Your task to perform on an android device: Show me the best rated 4K TV on Walmart. Image 0: 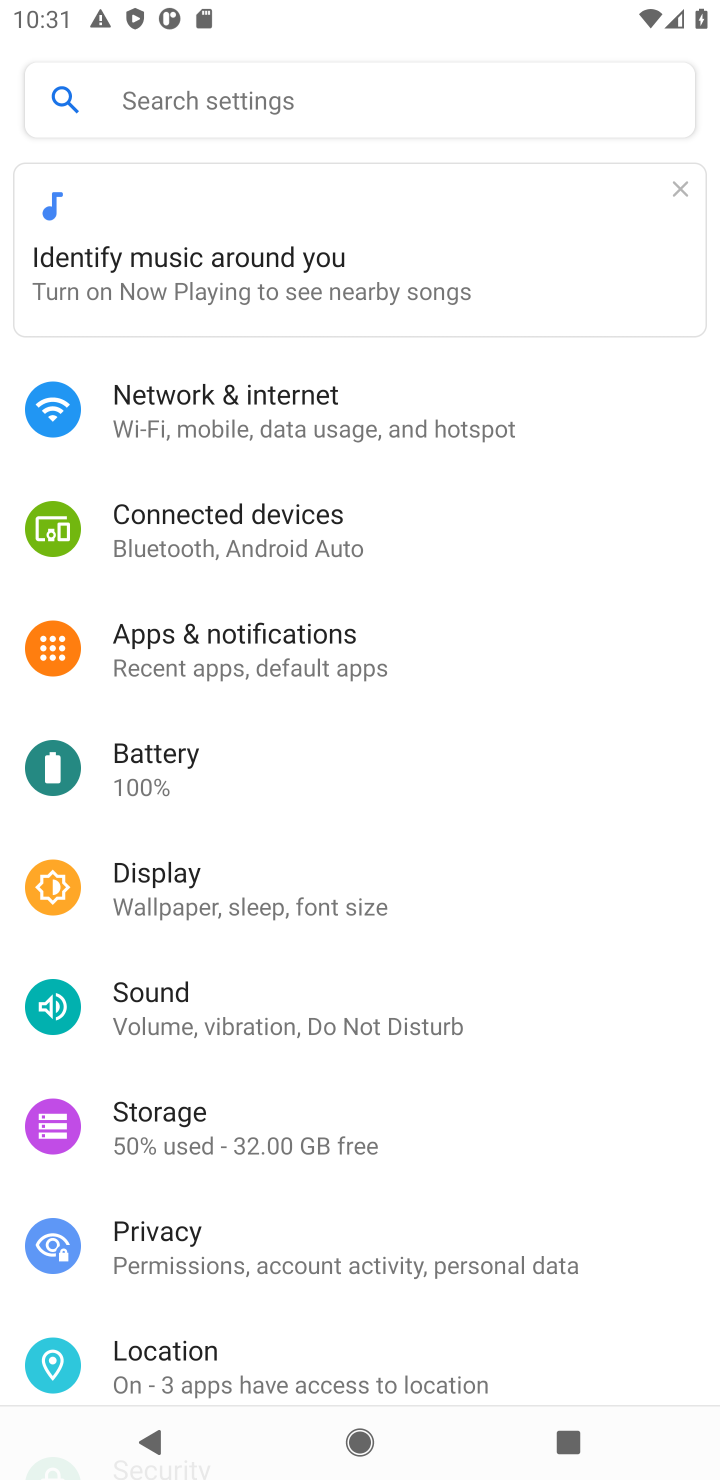
Step 0: press home button
Your task to perform on an android device: Show me the best rated 4K TV on Walmart. Image 1: 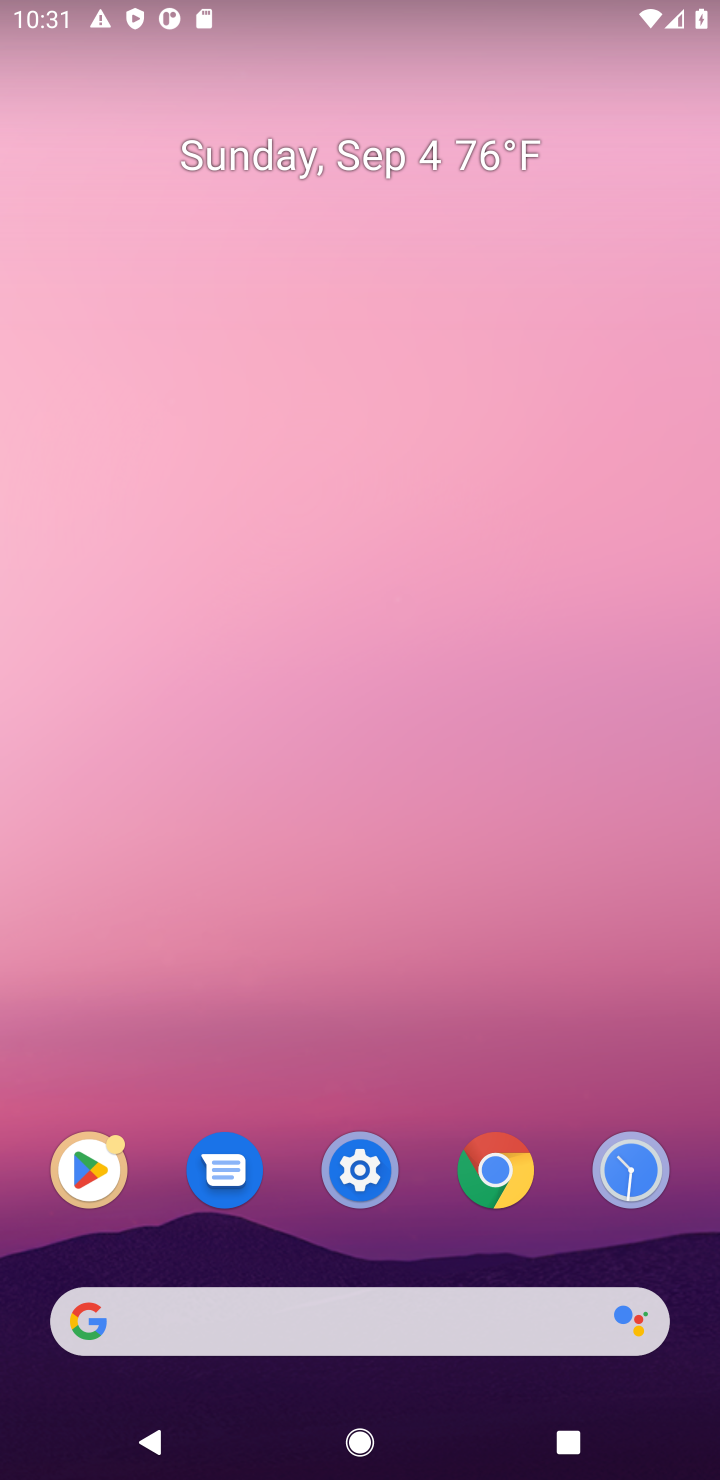
Step 1: click (409, 1346)
Your task to perform on an android device: Show me the best rated 4K TV on Walmart. Image 2: 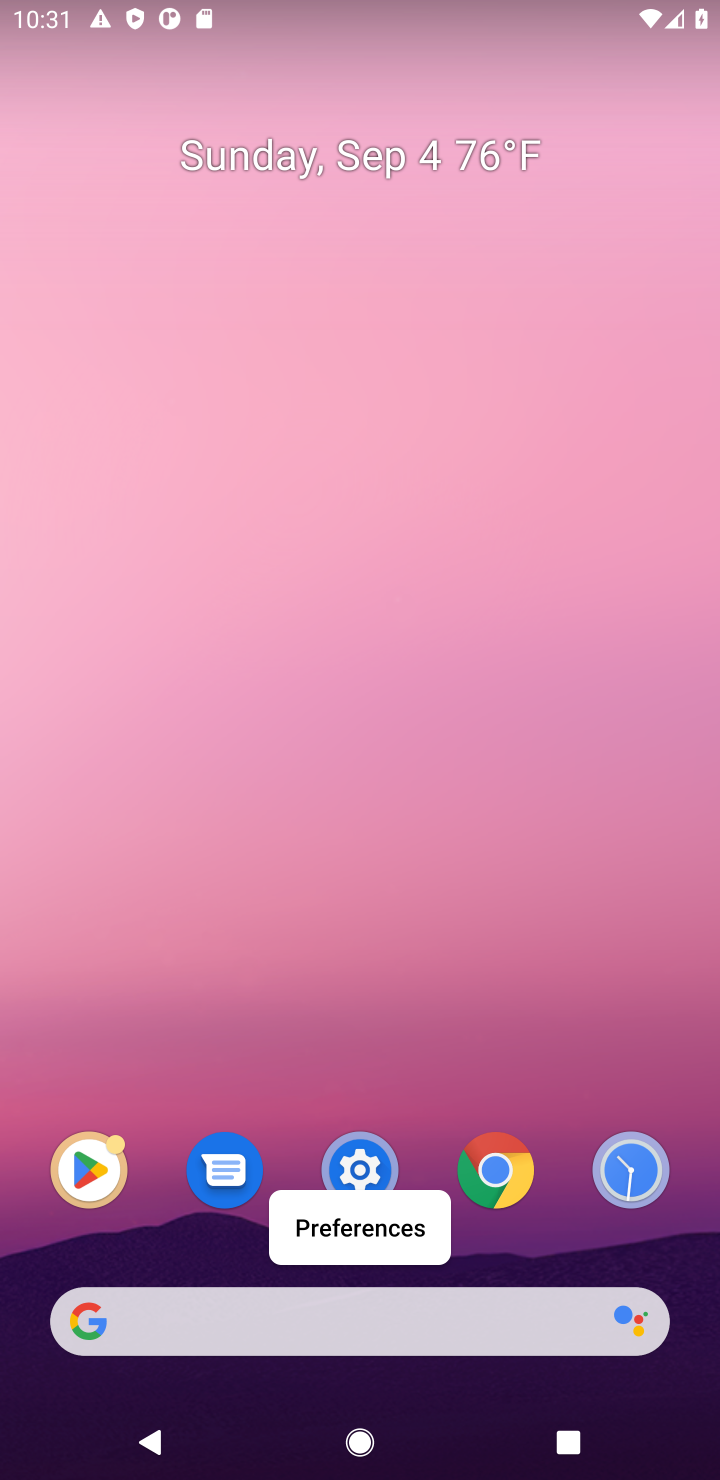
Step 2: click (364, 1329)
Your task to perform on an android device: Show me the best rated 4K TV on Walmart. Image 3: 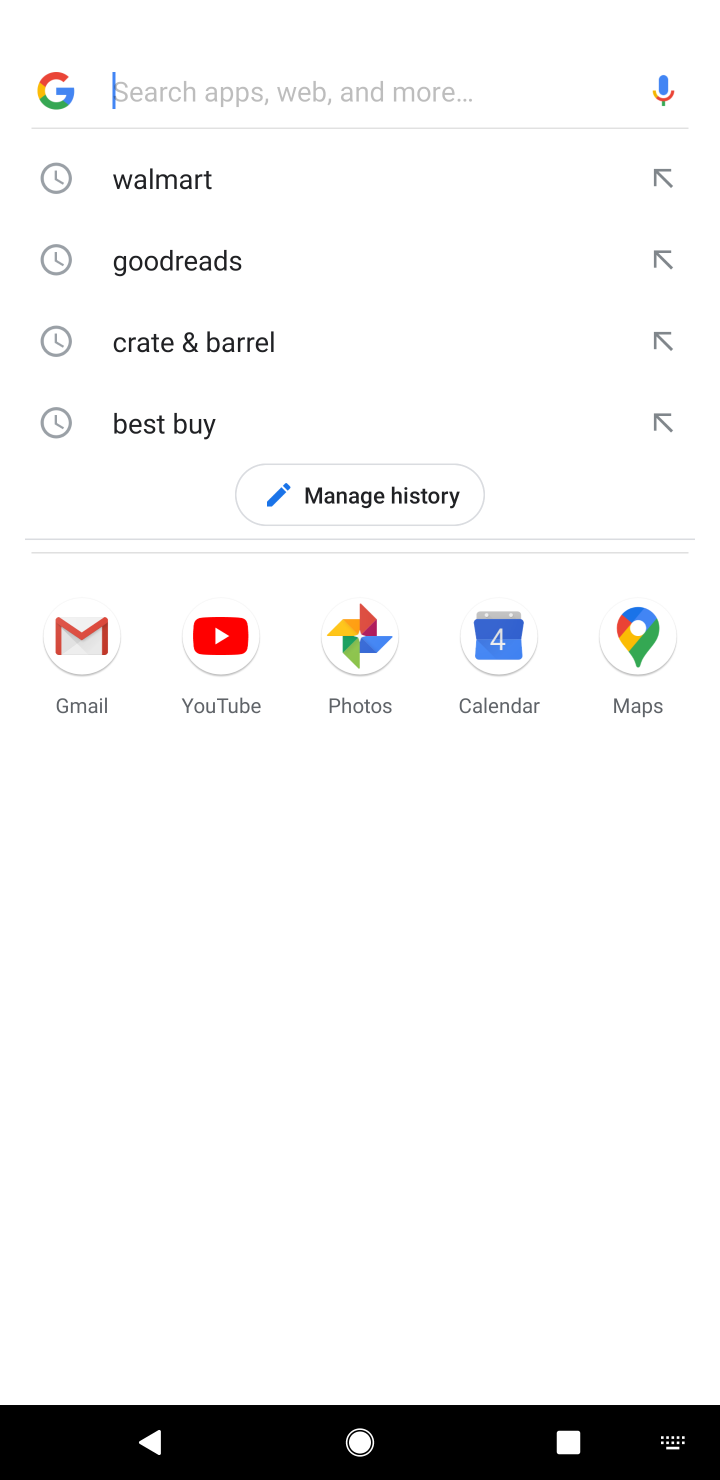
Step 3: click (126, 163)
Your task to perform on an android device: Show me the best rated 4K TV on Walmart. Image 4: 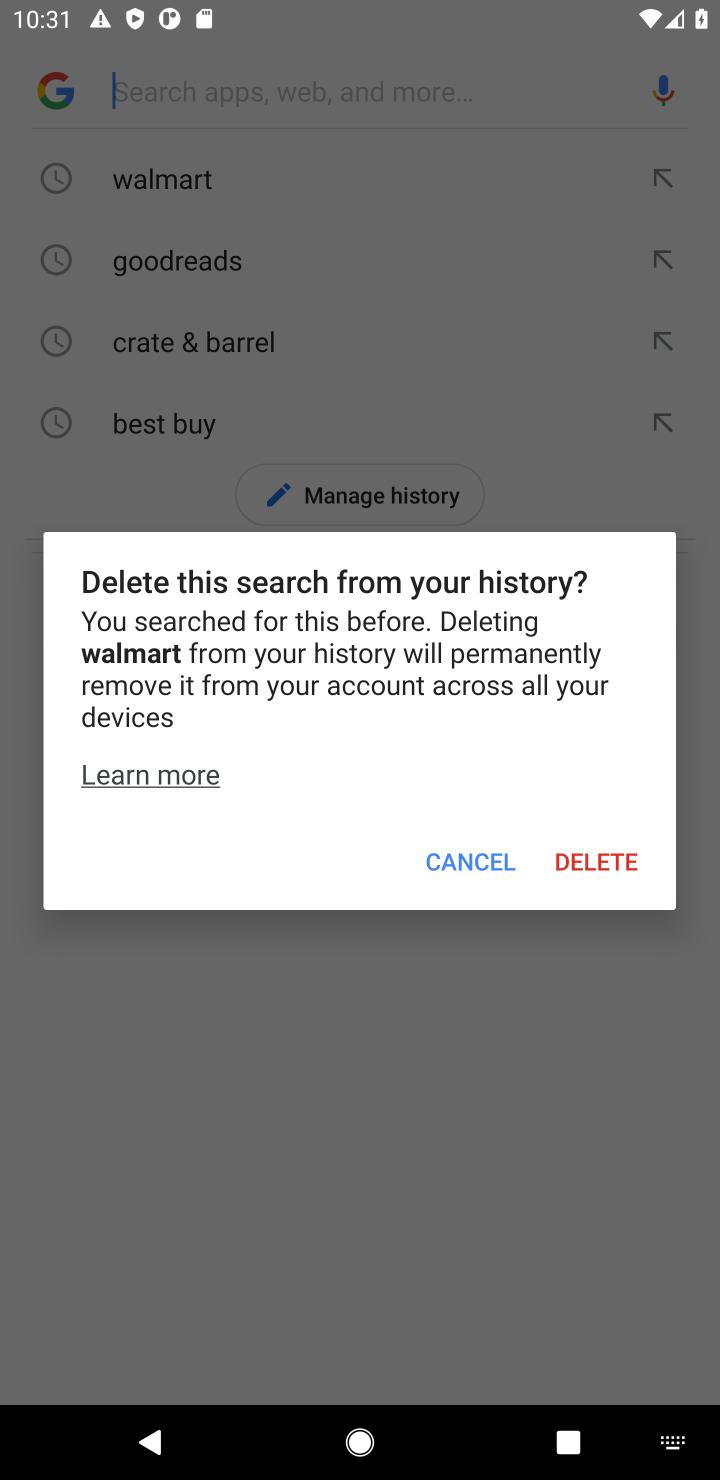
Step 4: click (431, 864)
Your task to perform on an android device: Show me the best rated 4K TV on Walmart. Image 5: 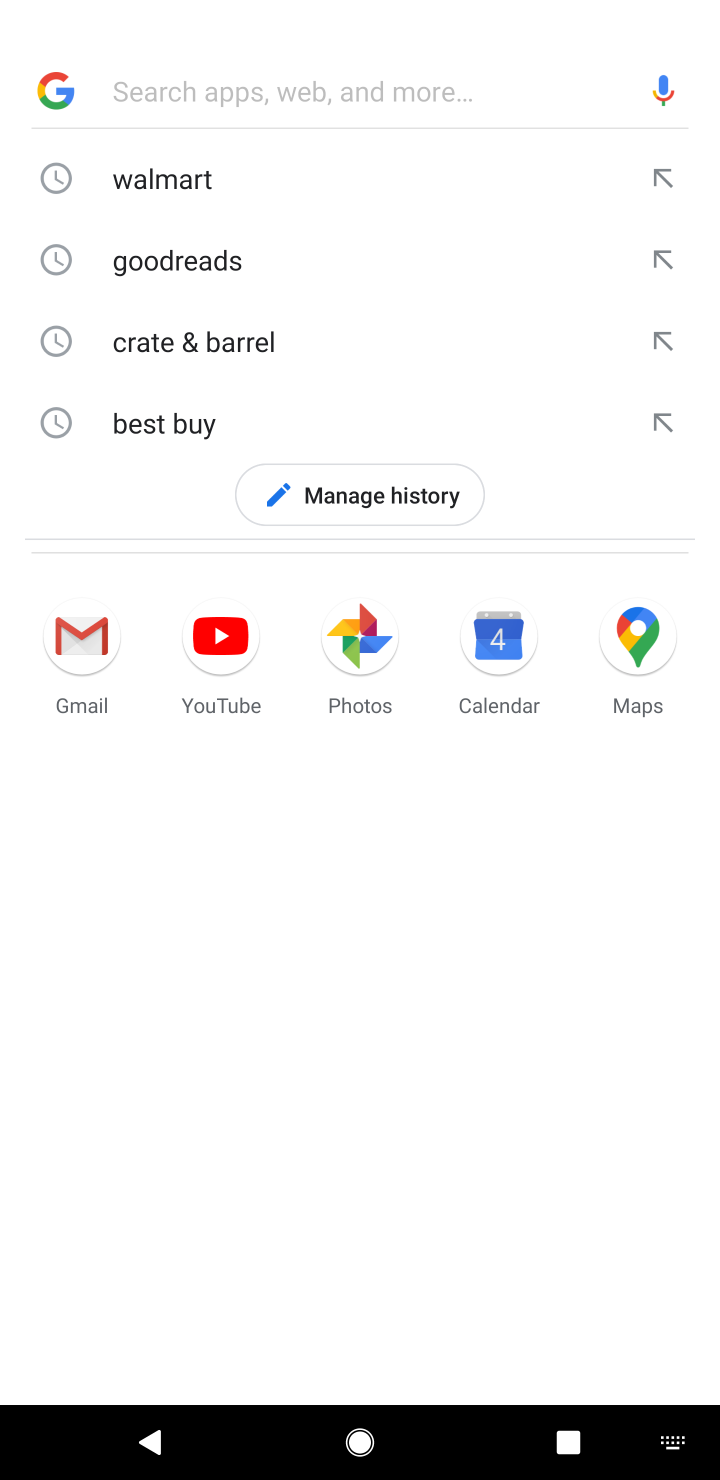
Step 5: click (189, 181)
Your task to perform on an android device: Show me the best rated 4K TV on Walmart. Image 6: 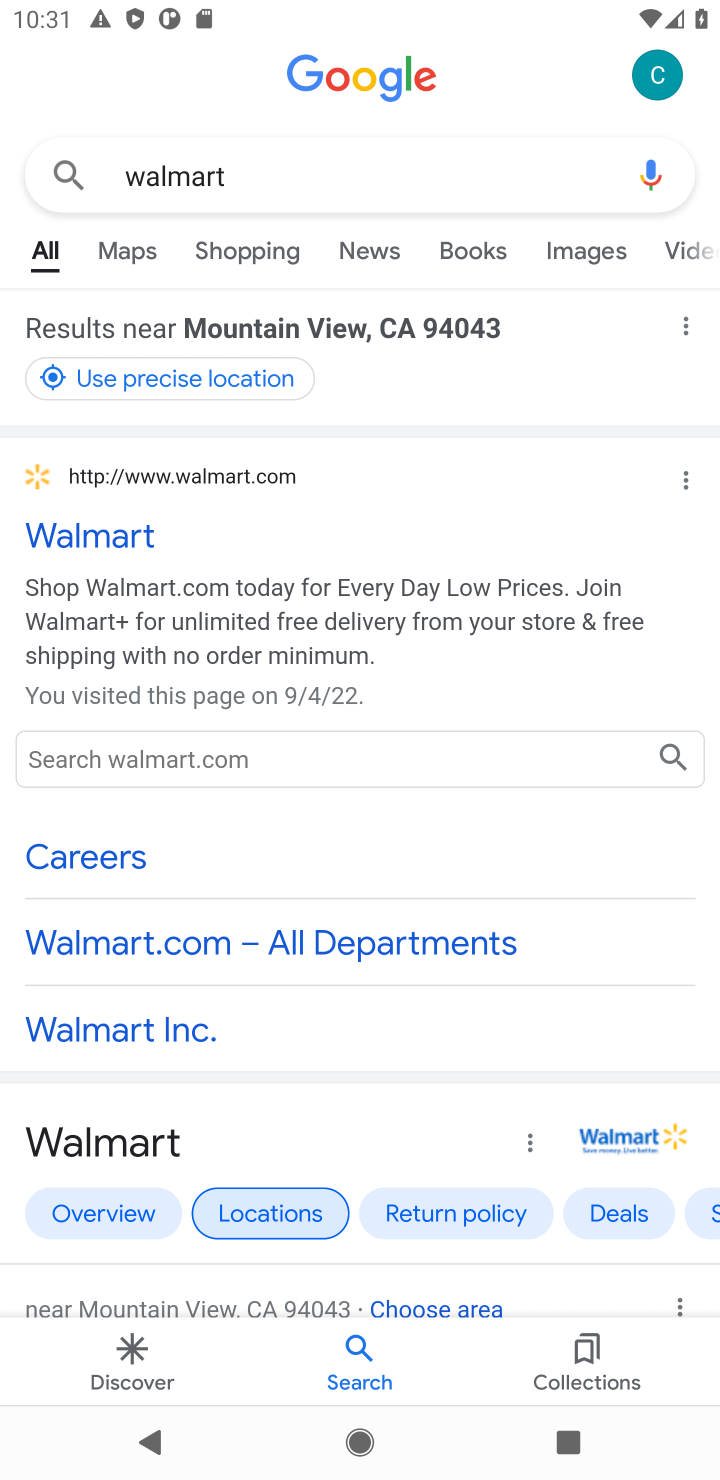
Step 6: click (133, 539)
Your task to perform on an android device: Show me the best rated 4K TV on Walmart. Image 7: 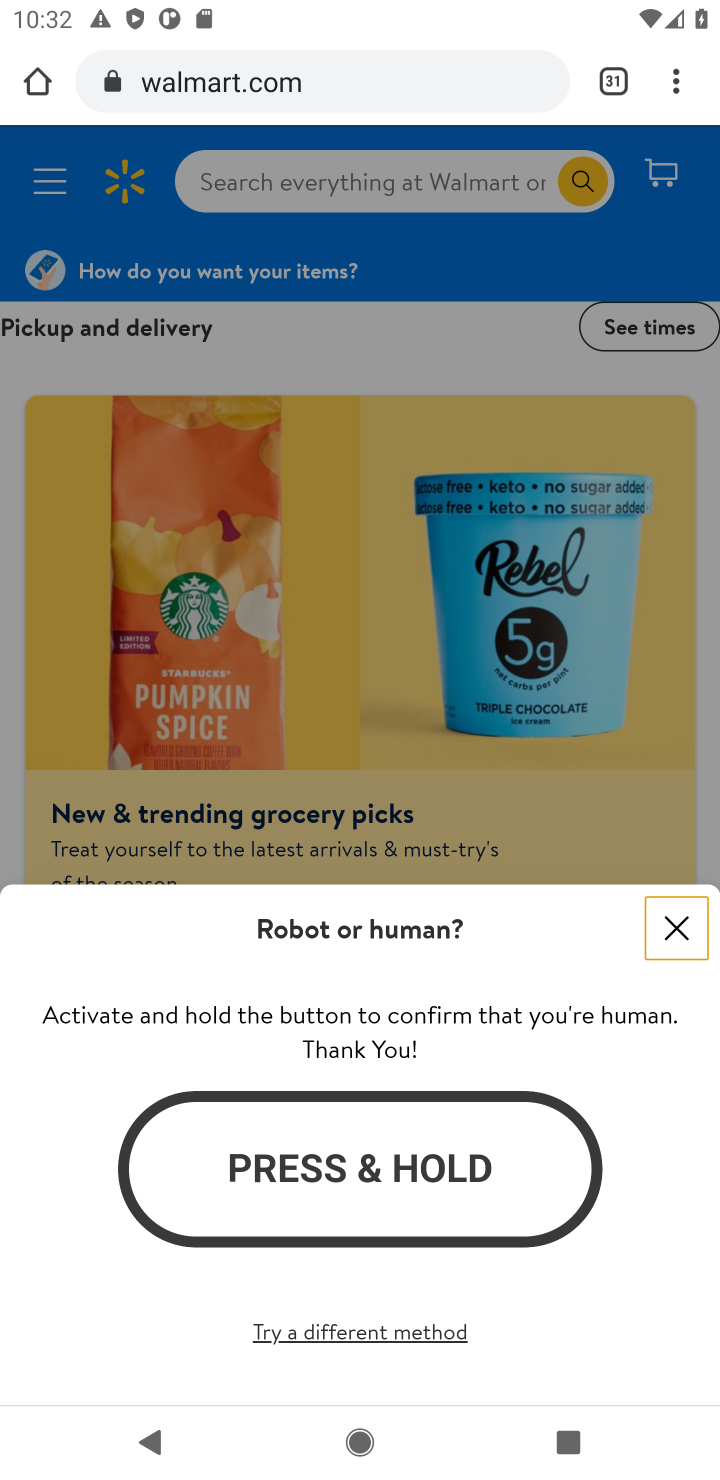
Step 7: click (701, 938)
Your task to perform on an android device: Show me the best rated 4K TV on Walmart. Image 8: 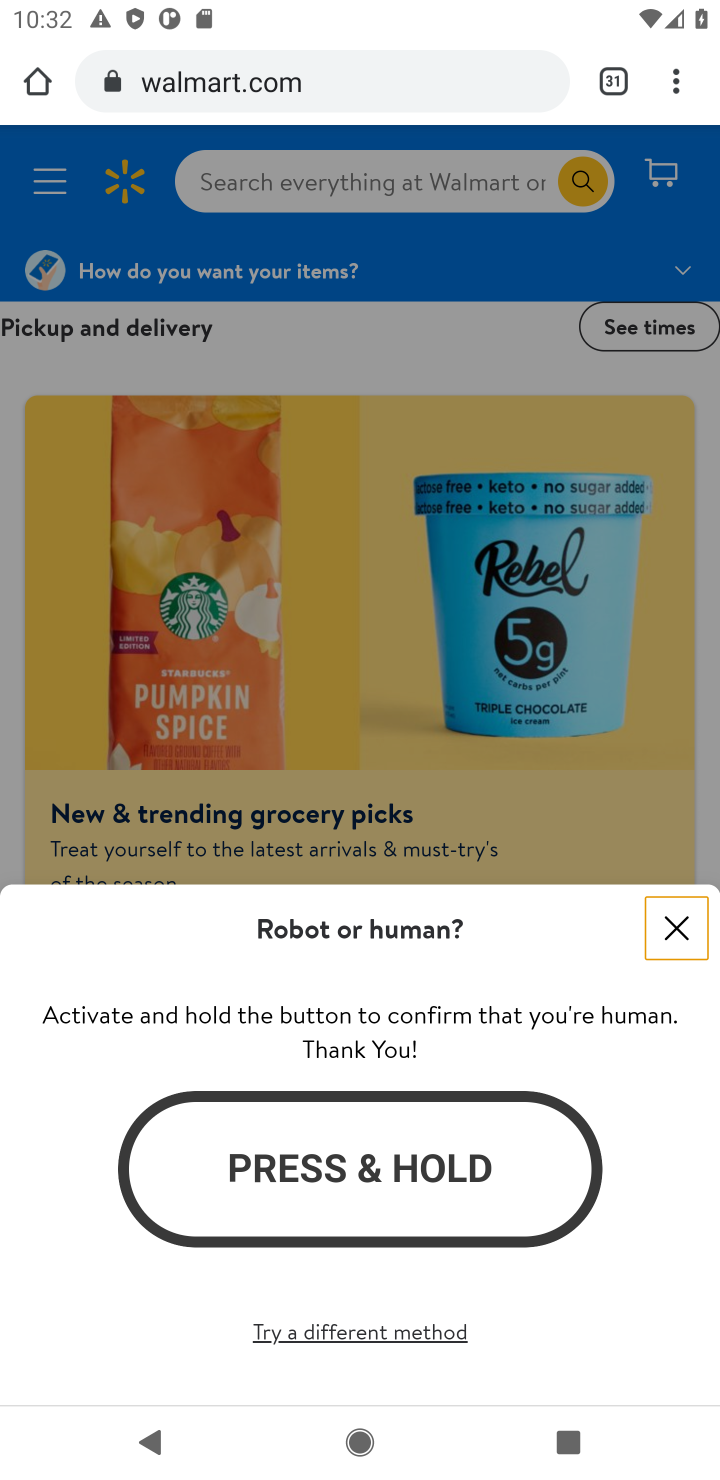
Step 8: click (694, 911)
Your task to perform on an android device: Show me the best rated 4K TV on Walmart. Image 9: 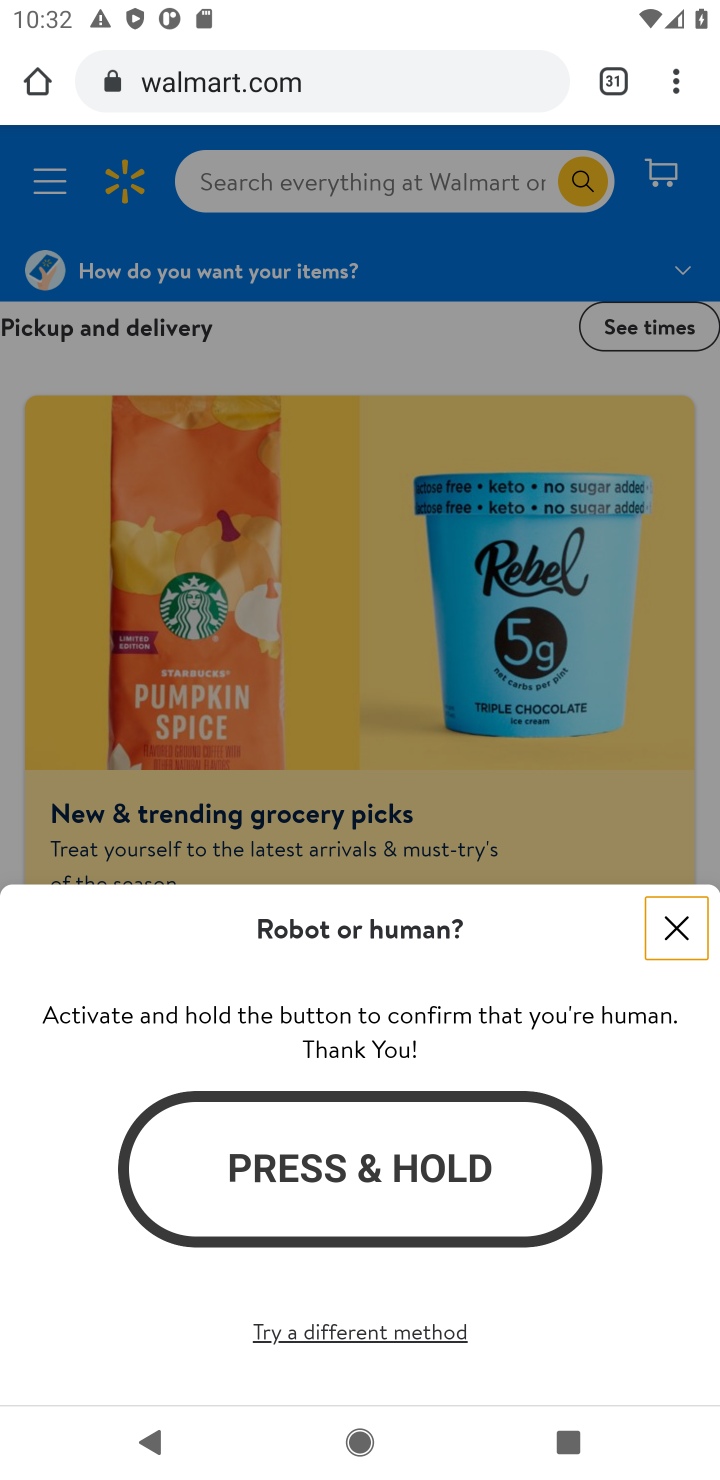
Step 9: click (228, 191)
Your task to perform on an android device: Show me the best rated 4K TV on Walmart. Image 10: 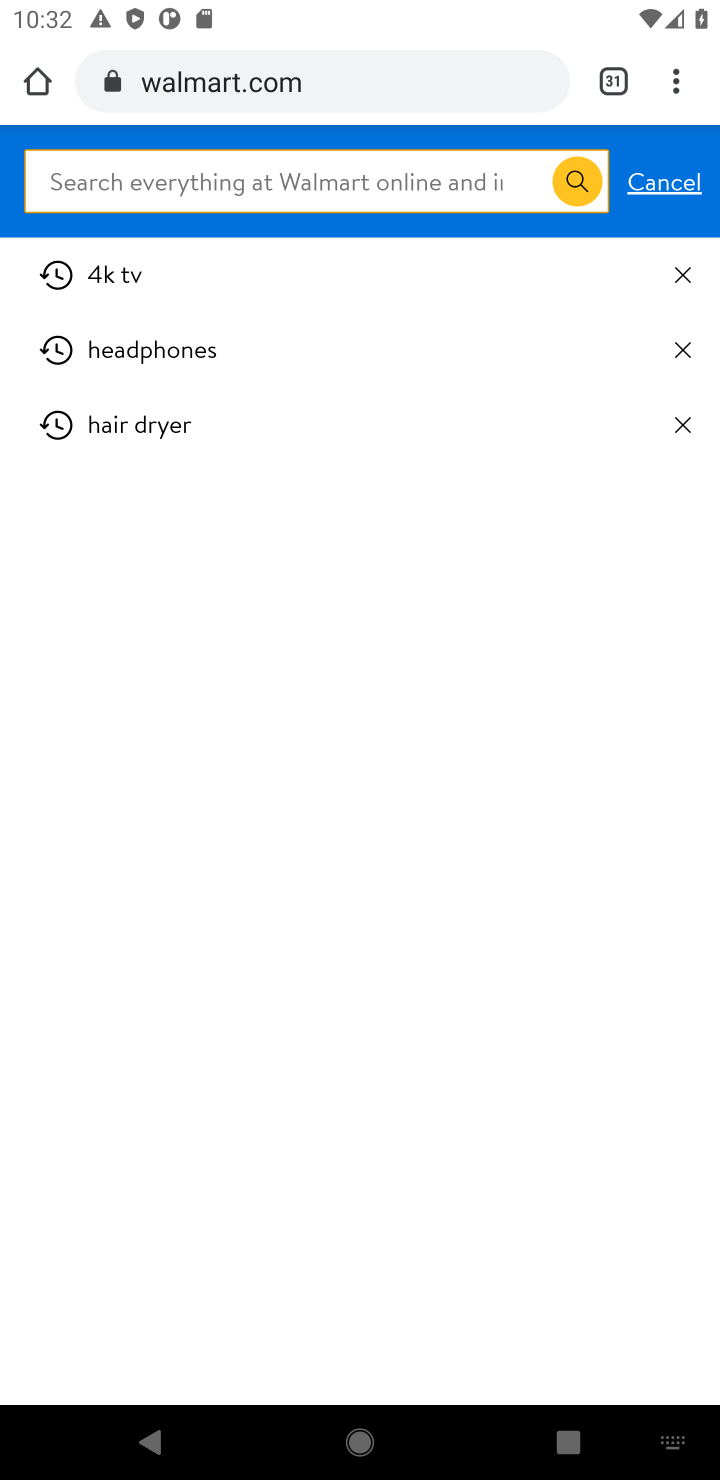
Step 10: click (153, 277)
Your task to perform on an android device: Show me the best rated 4K TV on Walmart. Image 11: 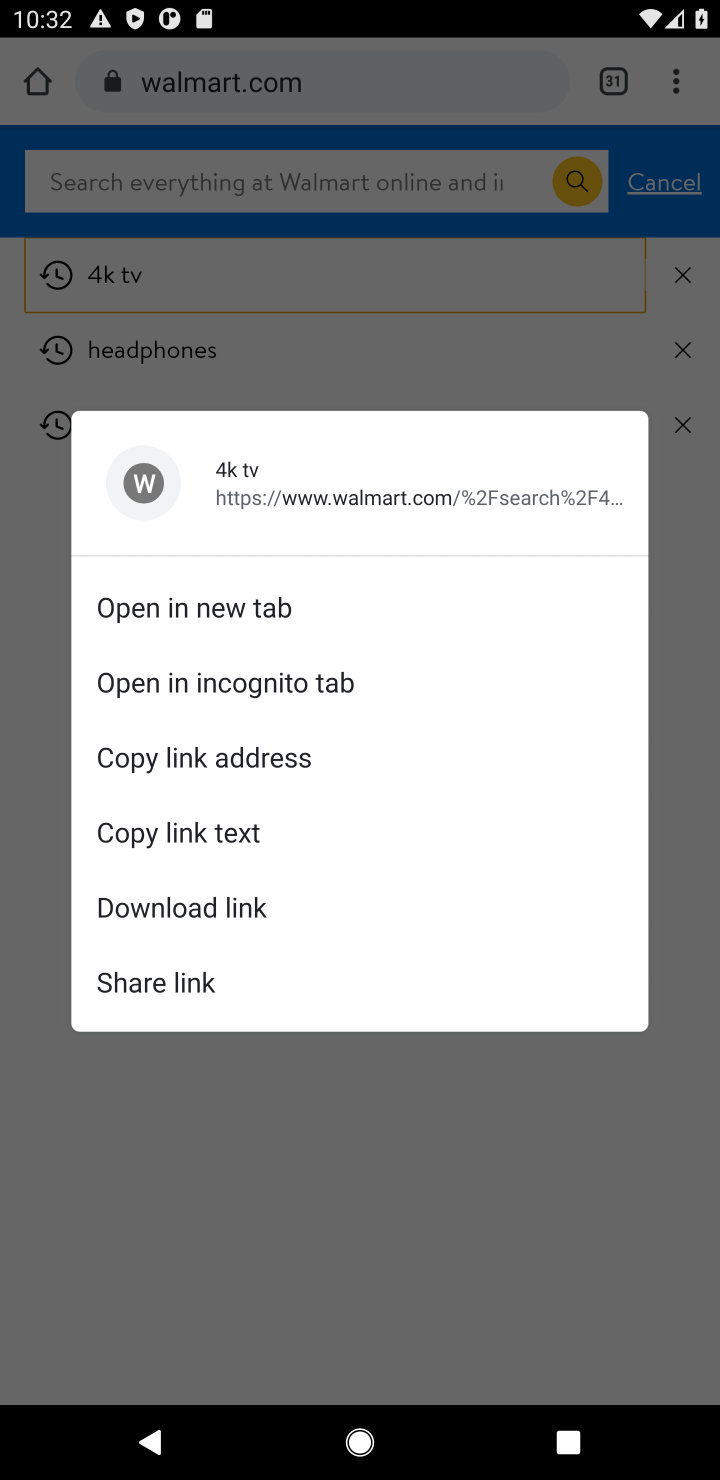
Step 11: click (148, 280)
Your task to perform on an android device: Show me the best rated 4K TV on Walmart. Image 12: 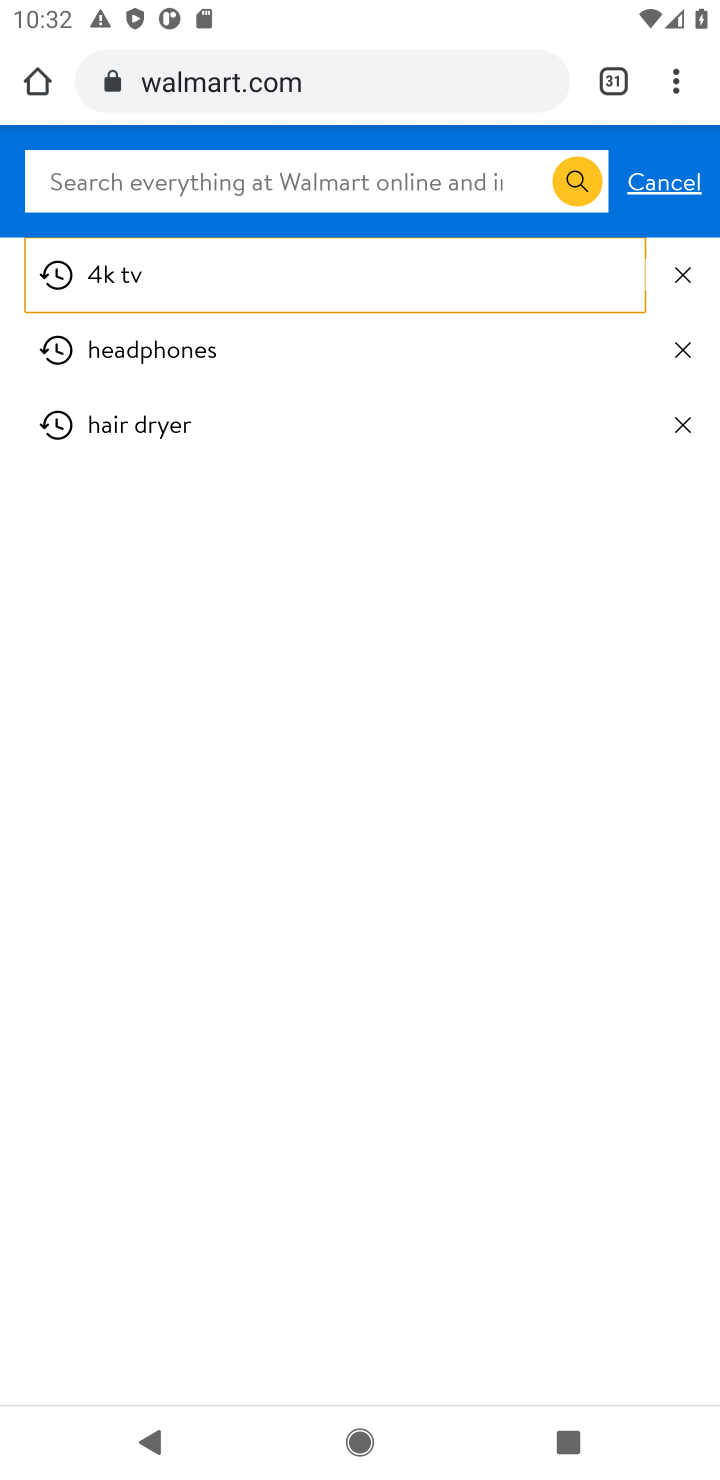
Step 12: click (148, 280)
Your task to perform on an android device: Show me the best rated 4K TV on Walmart. Image 13: 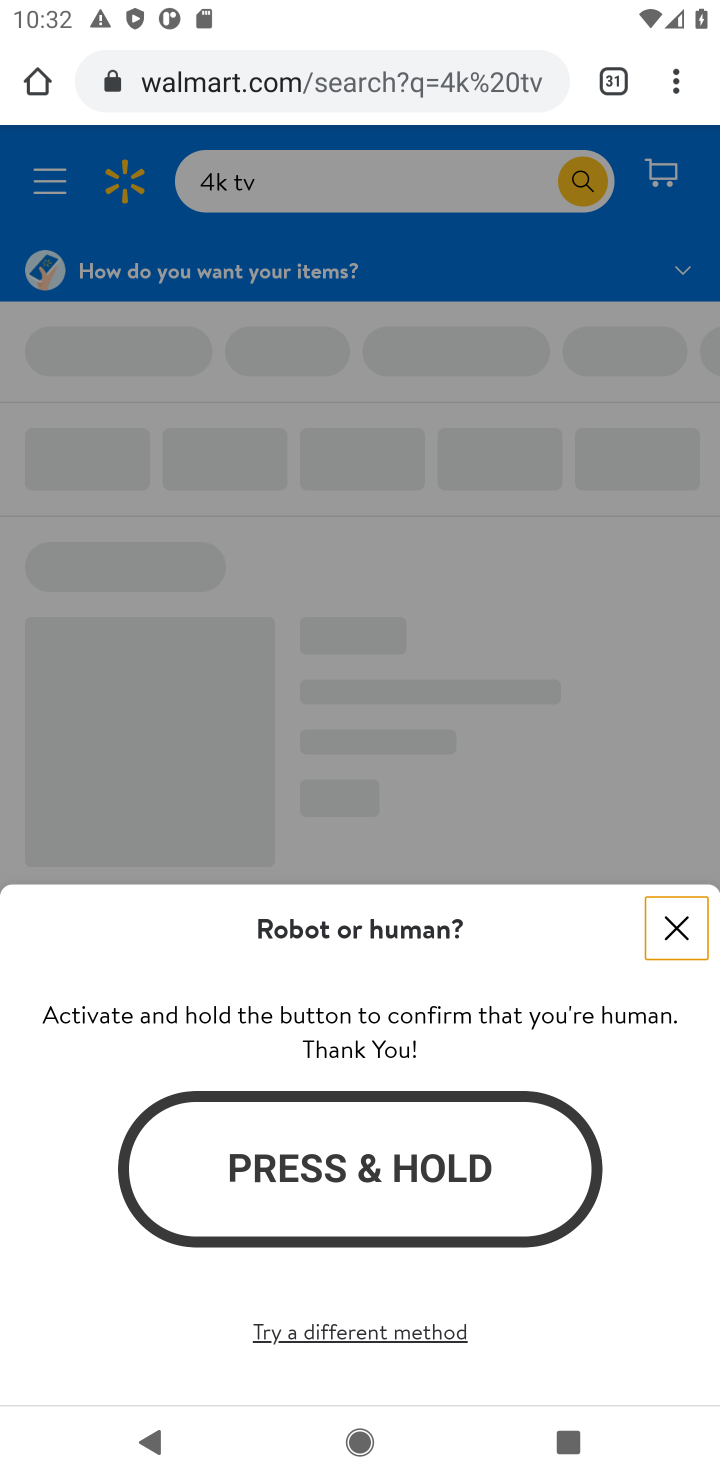
Step 13: click (664, 926)
Your task to perform on an android device: Show me the best rated 4K TV on Walmart. Image 14: 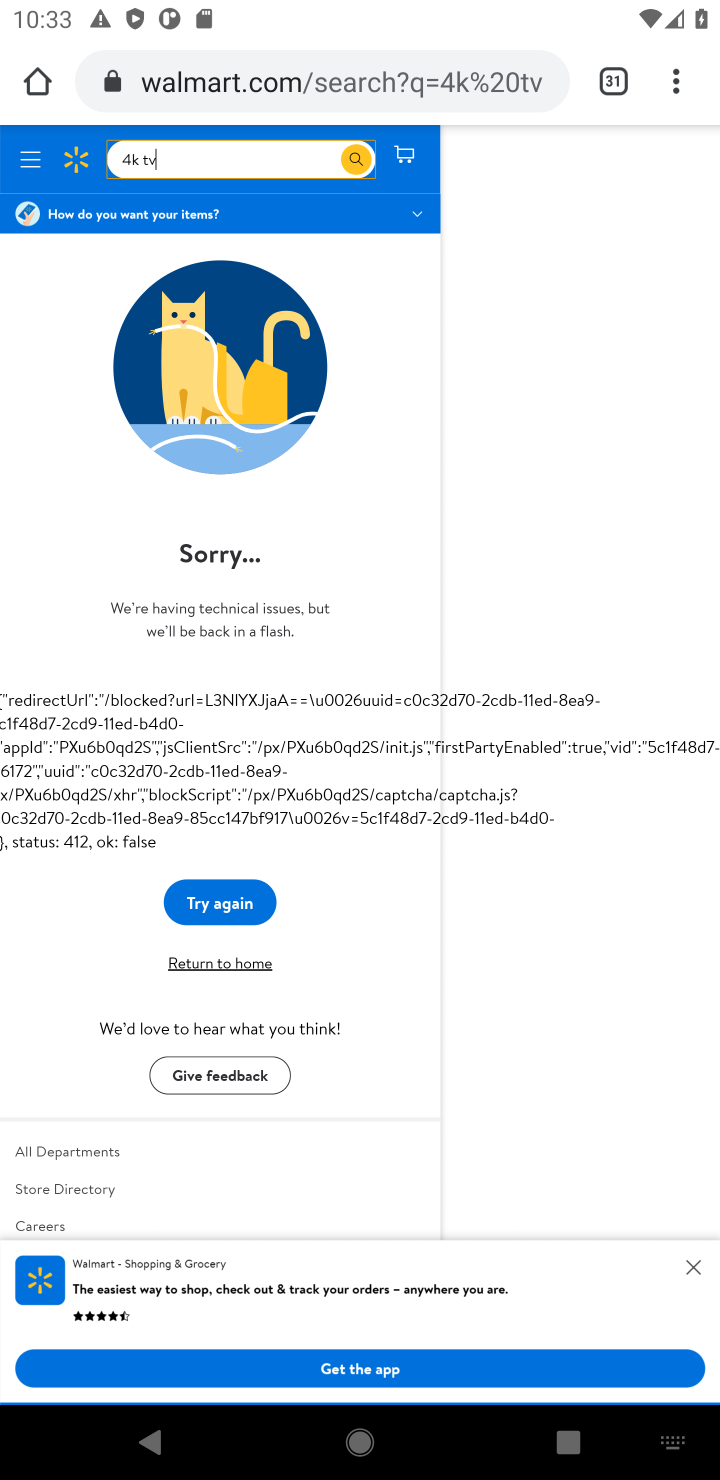
Step 14: task complete